Your task to perform on an android device: Open Wikipedia Image 0: 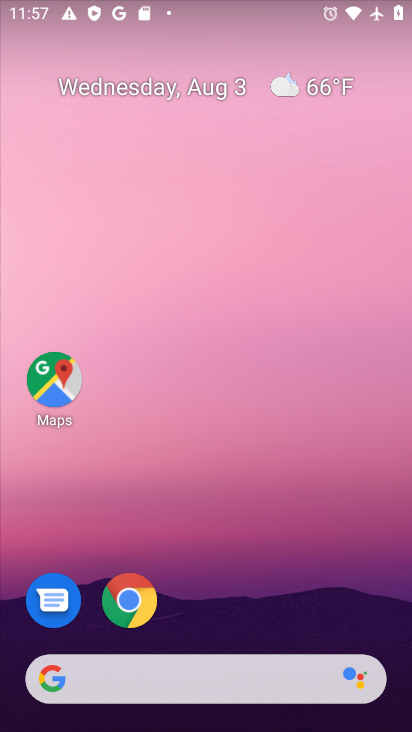
Step 0: drag from (187, 649) to (148, 78)
Your task to perform on an android device: Open Wikipedia Image 1: 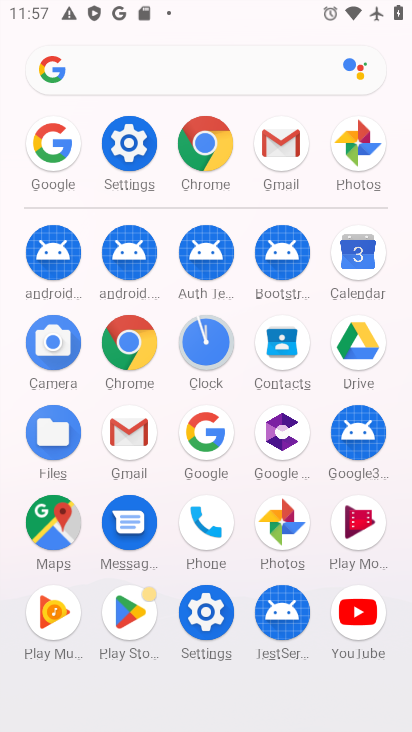
Step 1: click (210, 169)
Your task to perform on an android device: Open Wikipedia Image 2: 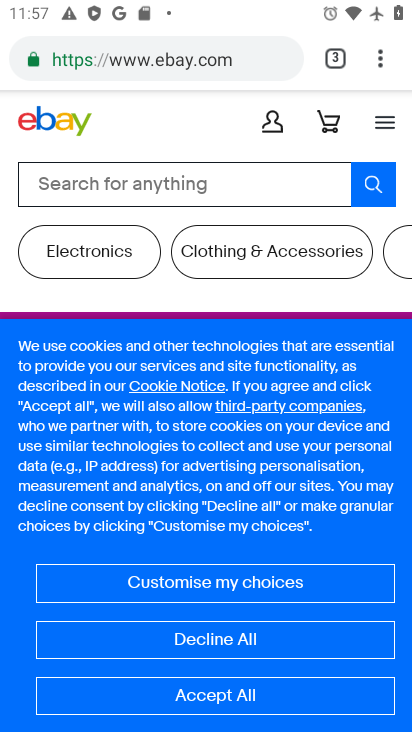
Step 2: click (333, 52)
Your task to perform on an android device: Open Wikipedia Image 3: 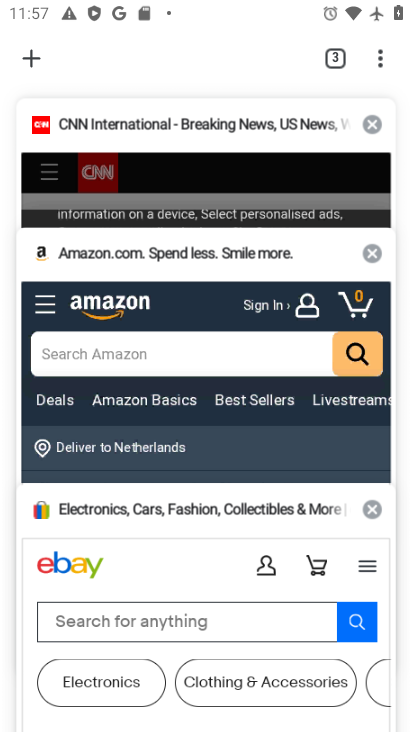
Step 3: click (38, 56)
Your task to perform on an android device: Open Wikipedia Image 4: 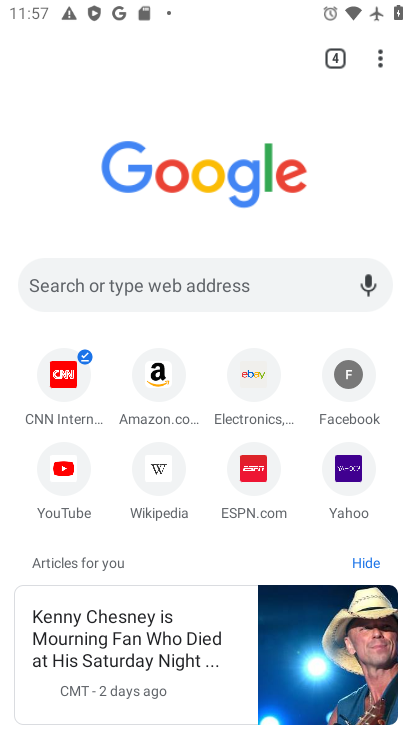
Step 4: click (156, 476)
Your task to perform on an android device: Open Wikipedia Image 5: 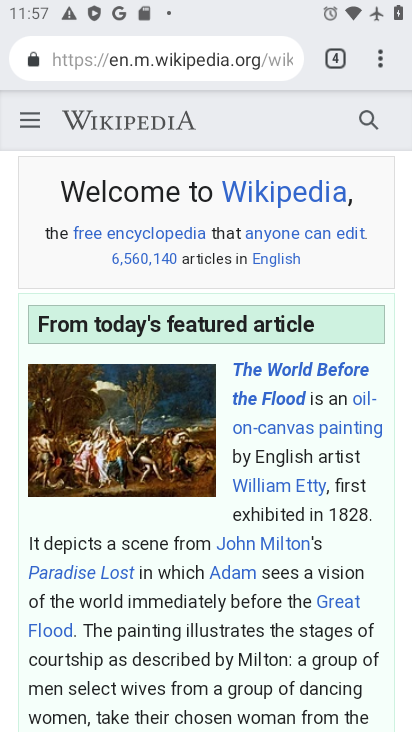
Step 5: task complete